Your task to perform on an android device: uninstall "Spotify: Music and Podcasts" Image 0: 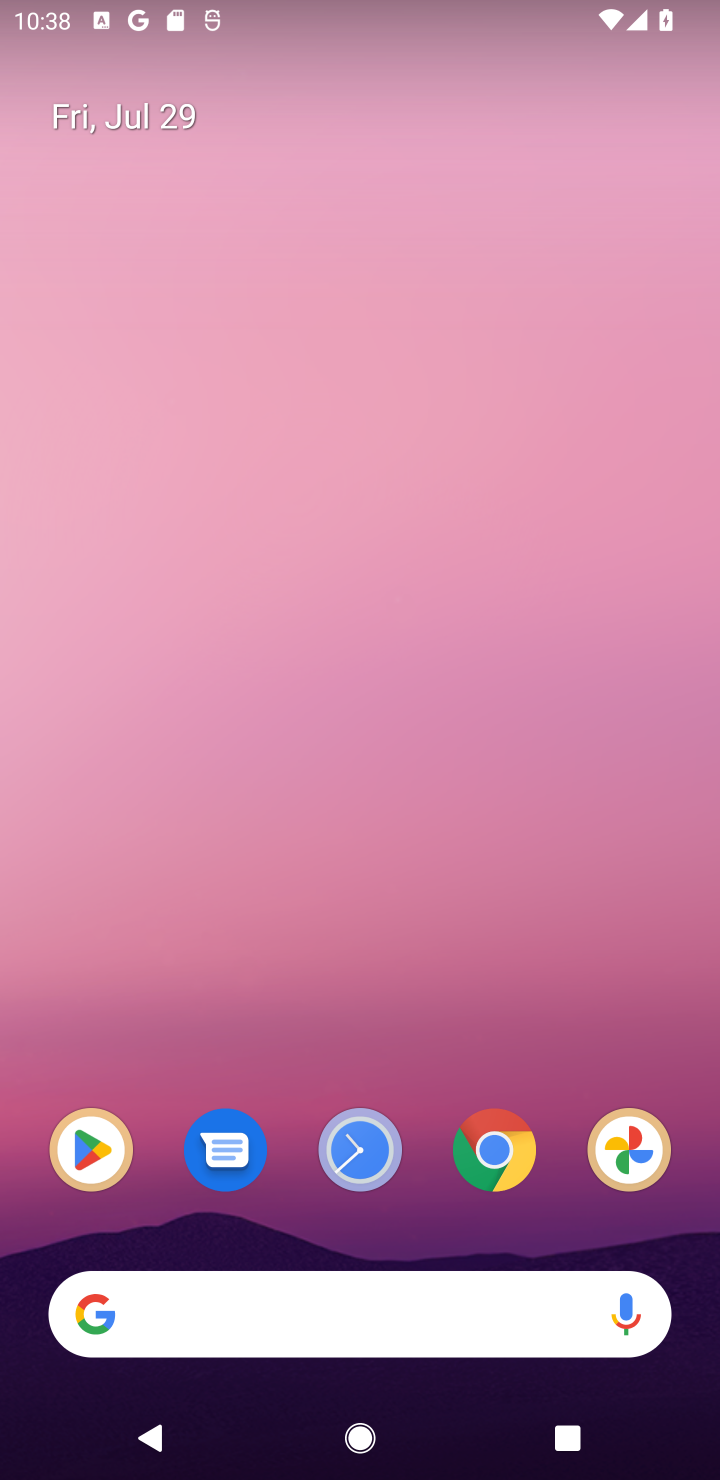
Step 0: click (83, 1167)
Your task to perform on an android device: uninstall "Spotify: Music and Podcasts" Image 1: 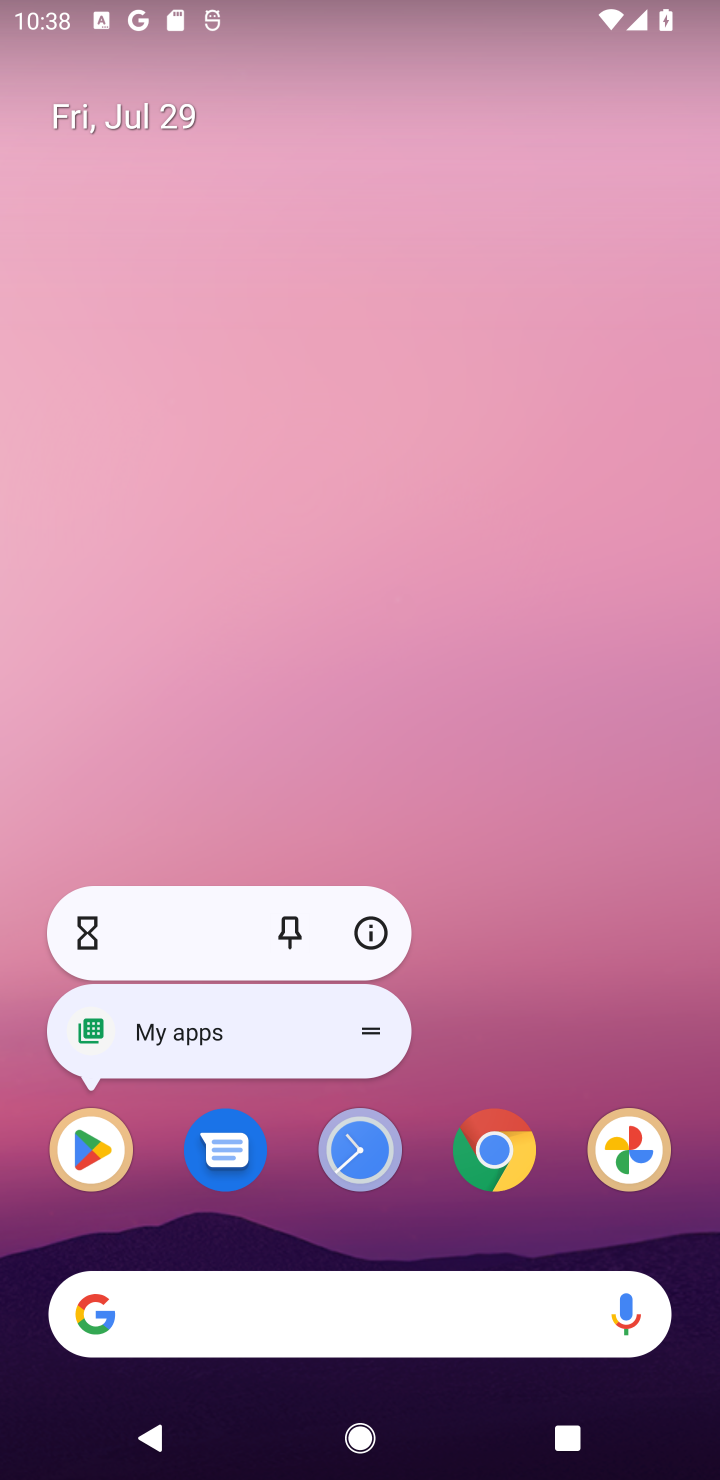
Step 1: click (83, 1167)
Your task to perform on an android device: uninstall "Spotify: Music and Podcasts" Image 2: 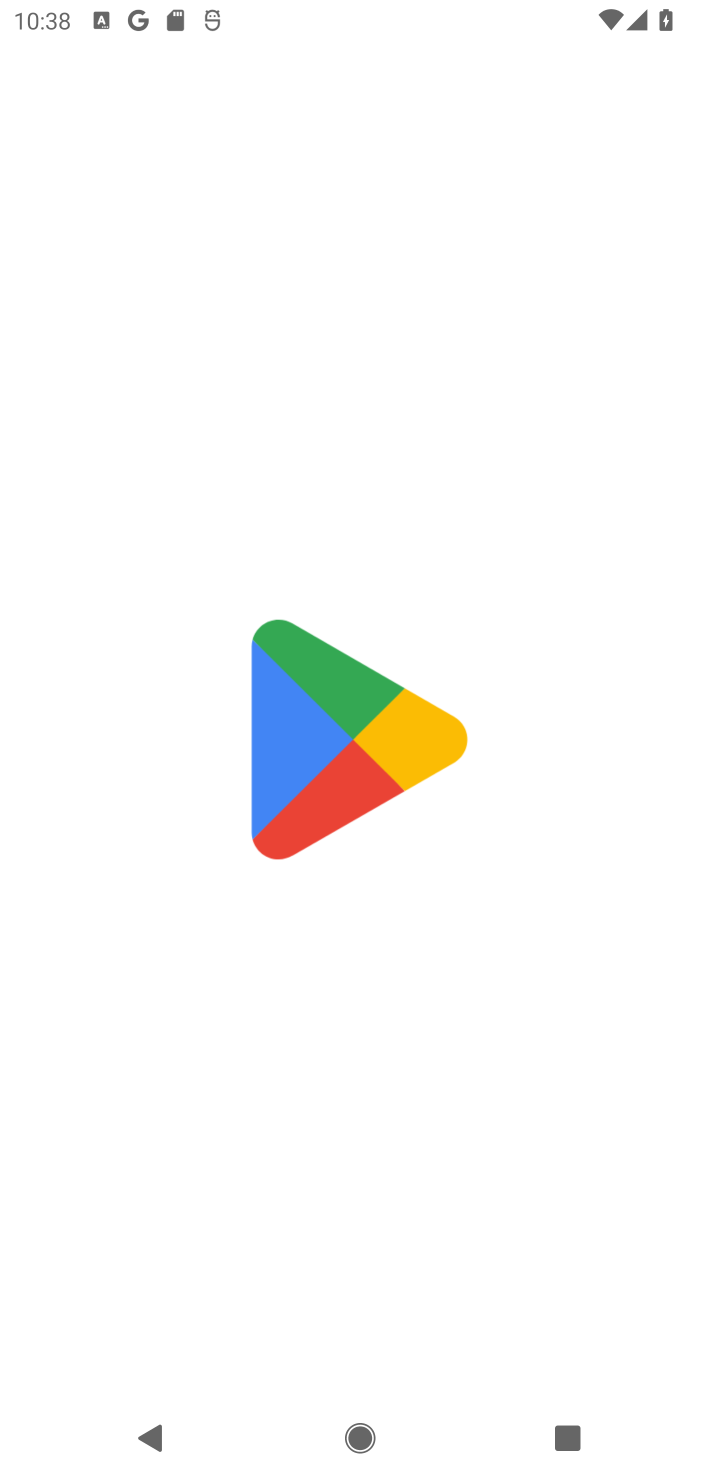
Step 2: click (98, 1159)
Your task to perform on an android device: uninstall "Spotify: Music and Podcasts" Image 3: 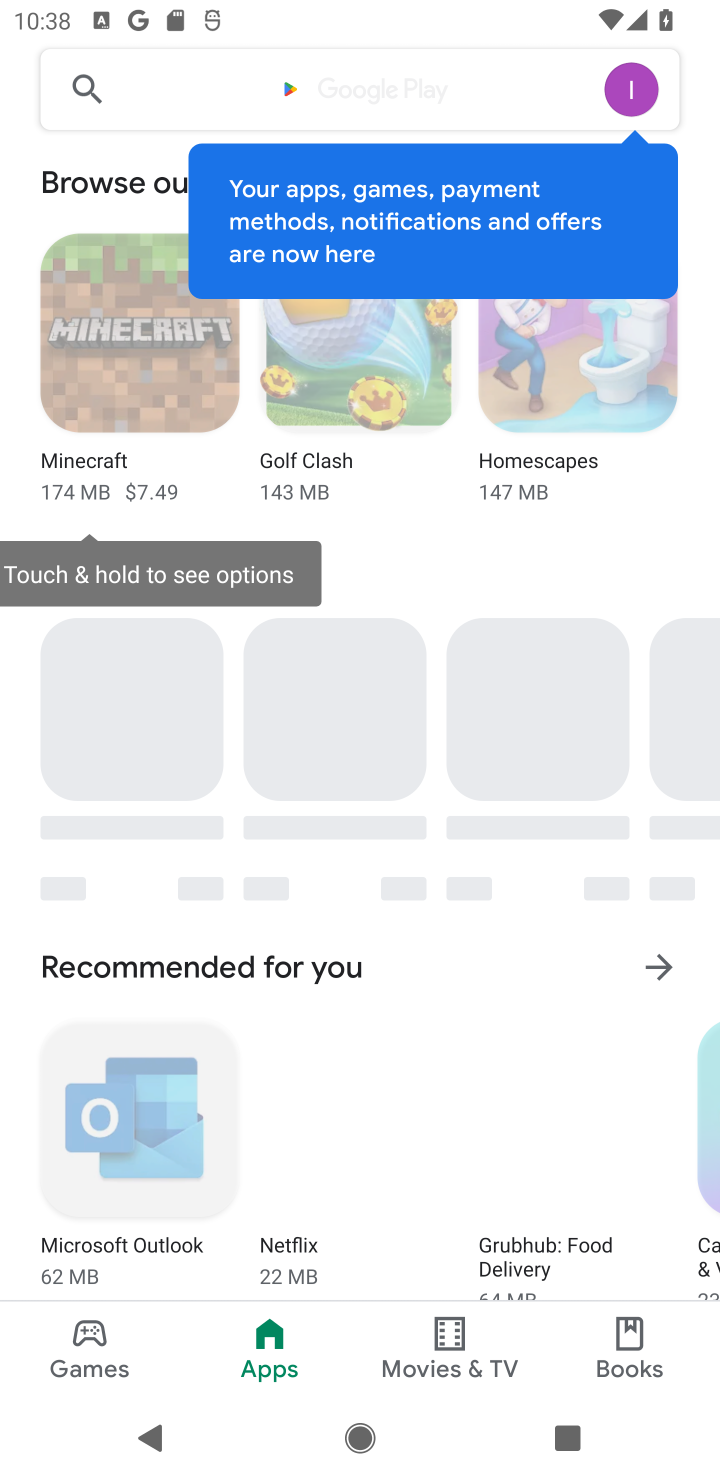
Step 3: click (224, 96)
Your task to perform on an android device: uninstall "Spotify: Music and Podcasts" Image 4: 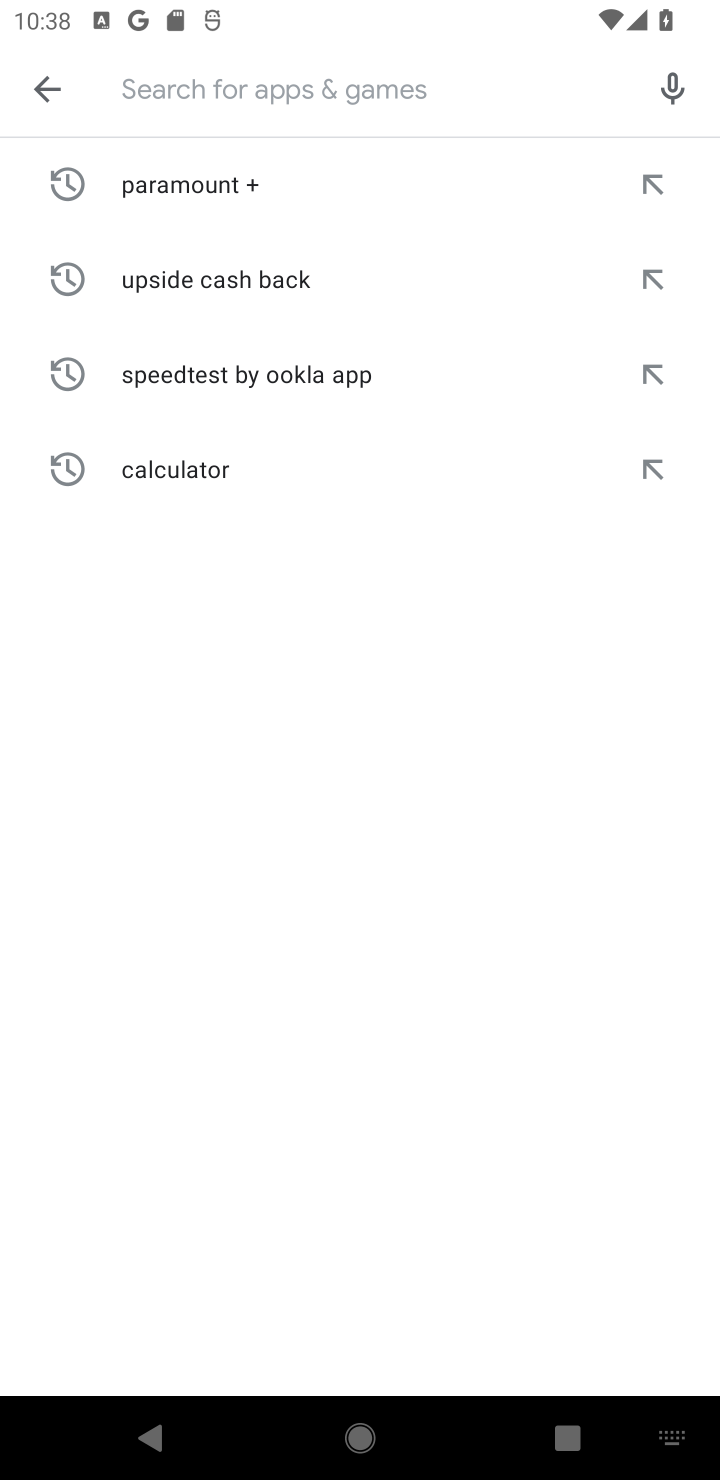
Step 4: type "spotify"
Your task to perform on an android device: uninstall "Spotify: Music and Podcasts" Image 5: 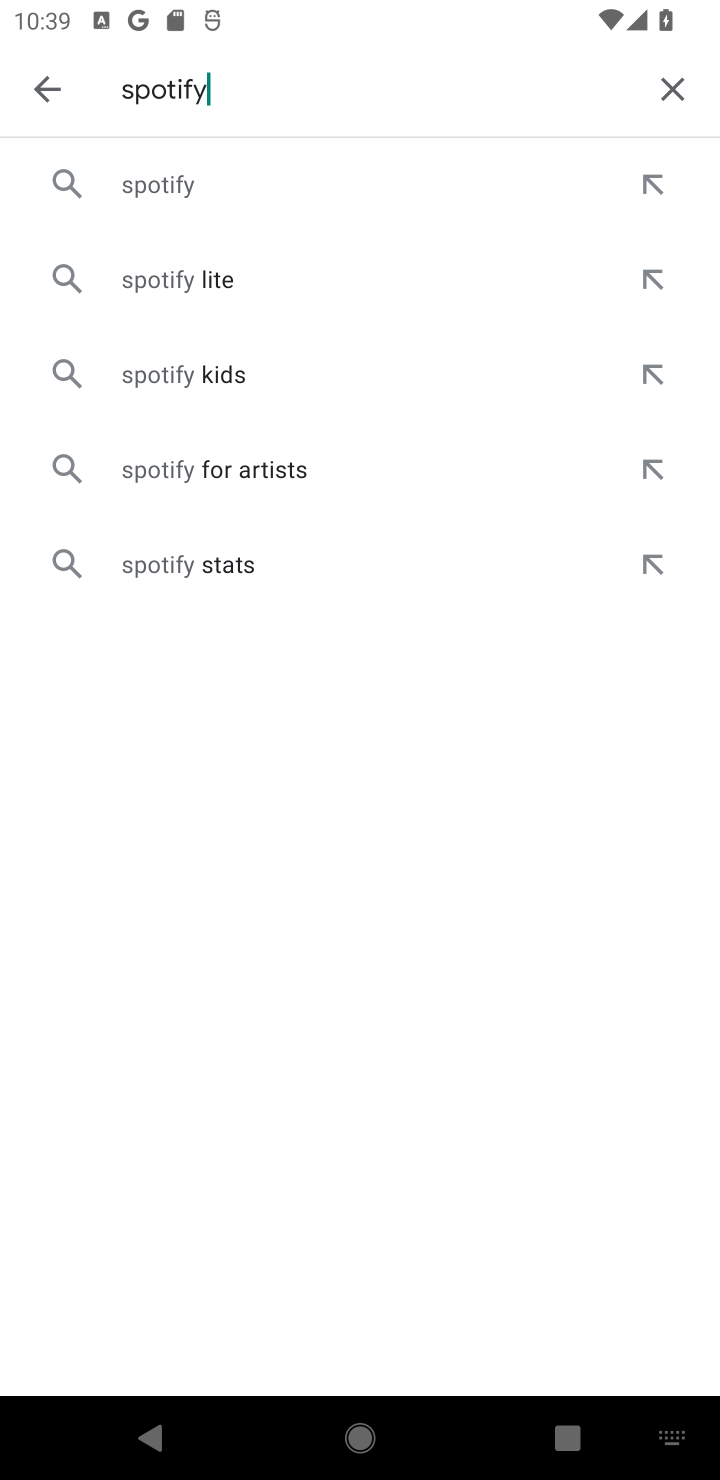
Step 5: click (219, 188)
Your task to perform on an android device: uninstall "Spotify: Music and Podcasts" Image 6: 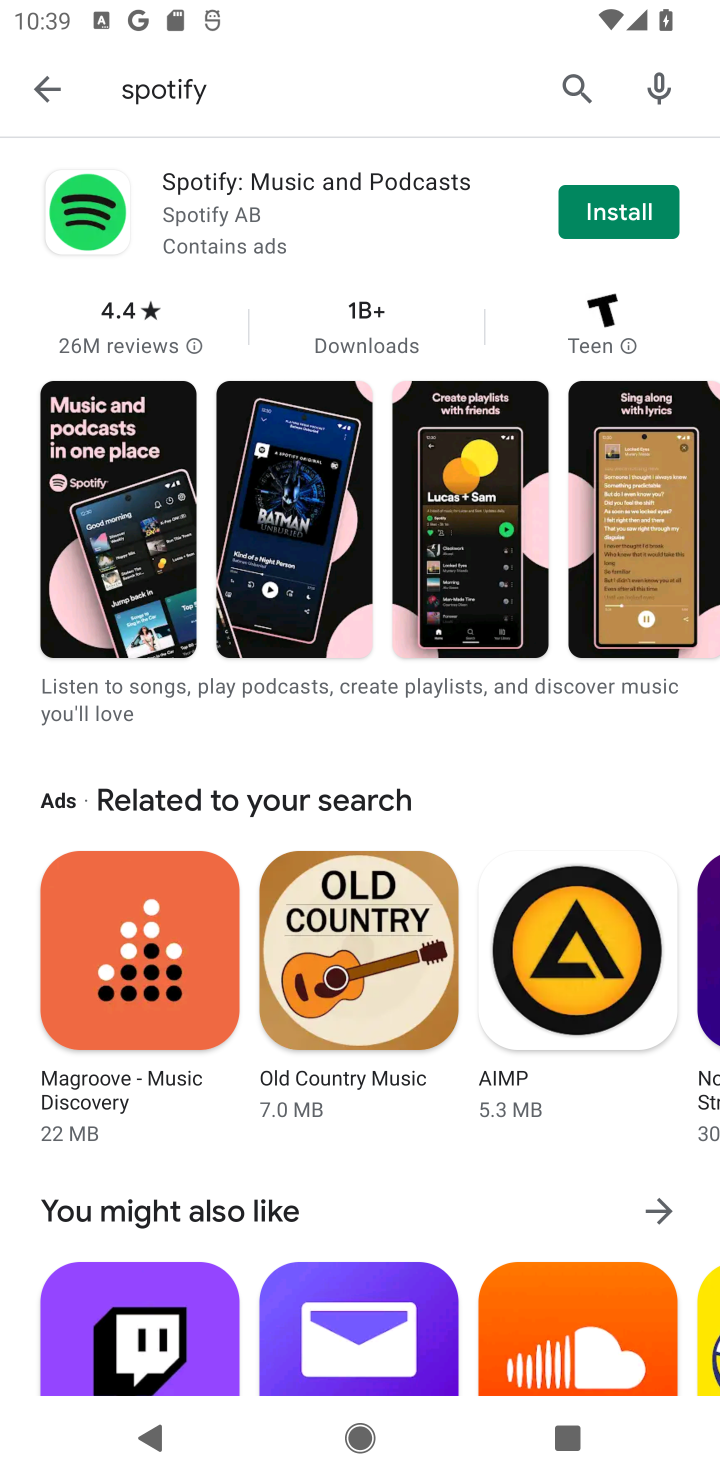
Step 6: task complete